Your task to perform on an android device: clear all cookies in the chrome app Image 0: 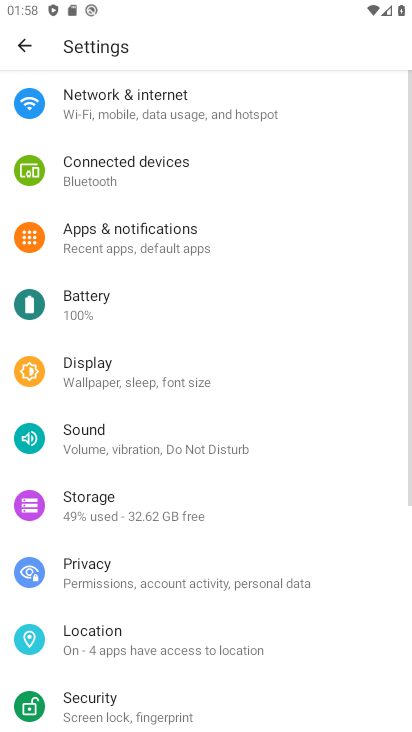
Step 0: press home button
Your task to perform on an android device: clear all cookies in the chrome app Image 1: 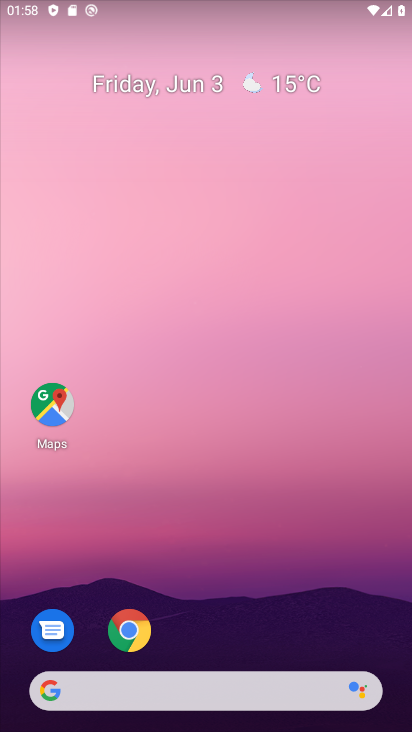
Step 1: click (129, 629)
Your task to perform on an android device: clear all cookies in the chrome app Image 2: 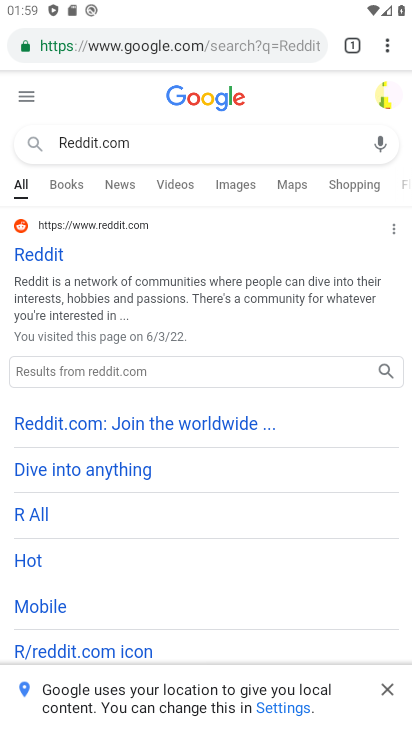
Step 2: click (390, 43)
Your task to perform on an android device: clear all cookies in the chrome app Image 3: 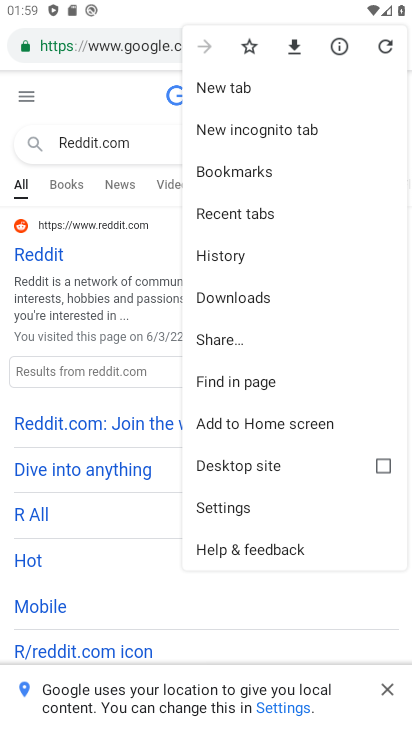
Step 3: click (224, 257)
Your task to perform on an android device: clear all cookies in the chrome app Image 4: 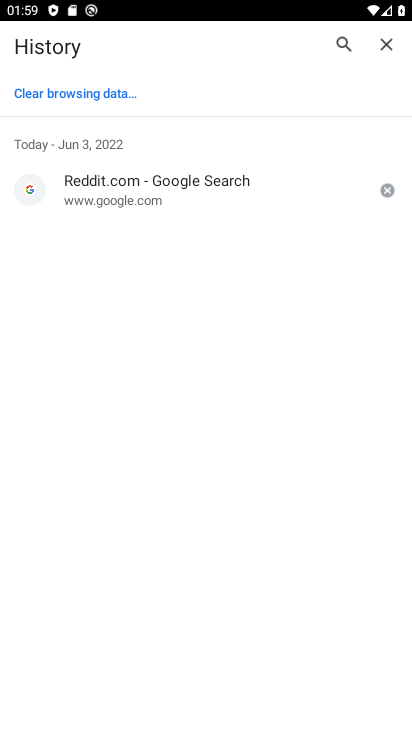
Step 4: click (106, 92)
Your task to perform on an android device: clear all cookies in the chrome app Image 5: 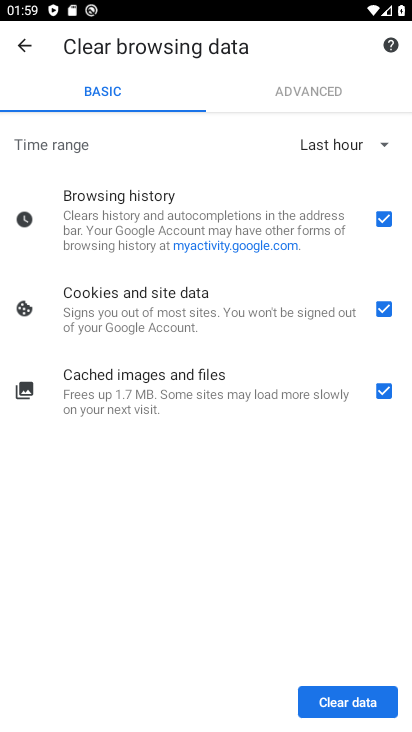
Step 5: click (383, 216)
Your task to perform on an android device: clear all cookies in the chrome app Image 6: 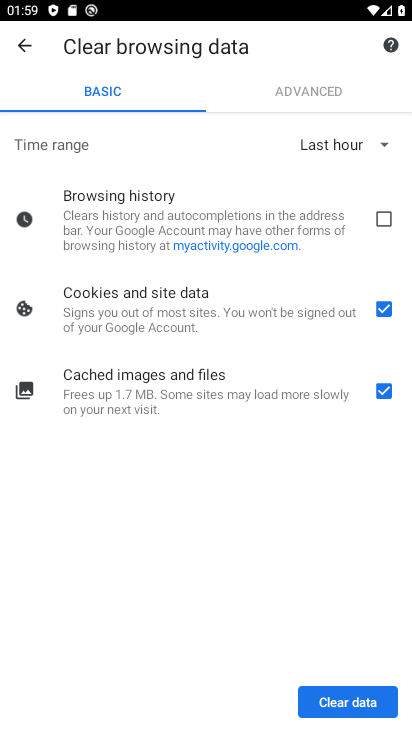
Step 6: click (380, 385)
Your task to perform on an android device: clear all cookies in the chrome app Image 7: 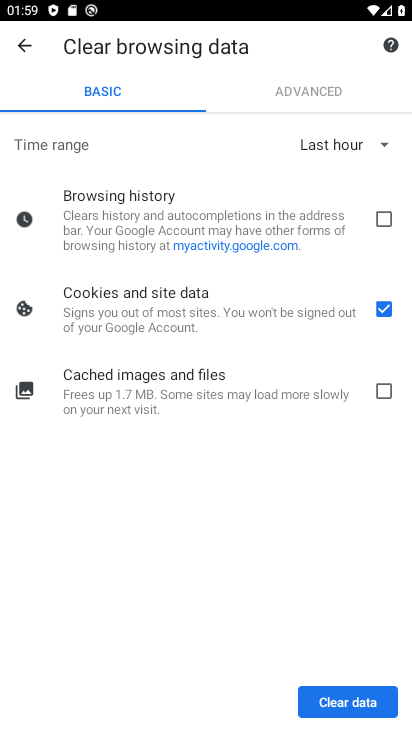
Step 7: click (370, 701)
Your task to perform on an android device: clear all cookies in the chrome app Image 8: 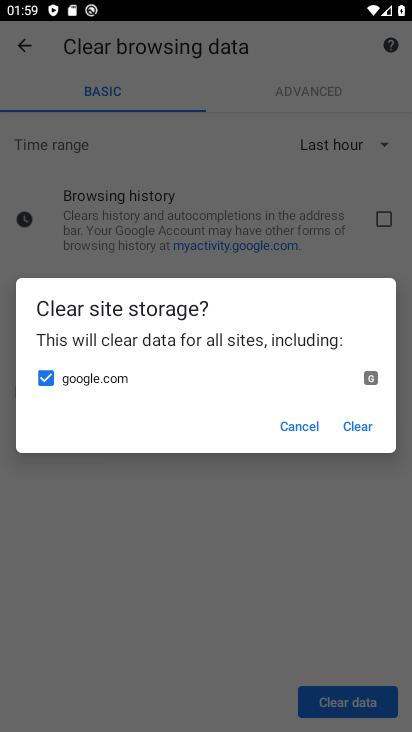
Step 8: click (371, 419)
Your task to perform on an android device: clear all cookies in the chrome app Image 9: 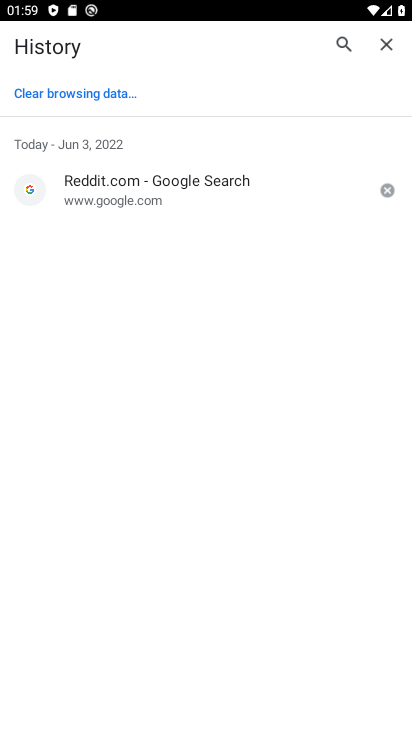
Step 9: task complete